Your task to perform on an android device: see sites visited before in the chrome app Image 0: 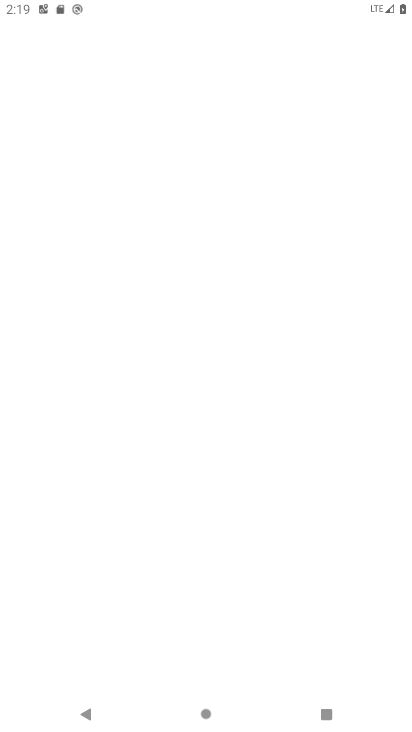
Step 0: drag from (249, 699) to (280, 534)
Your task to perform on an android device: see sites visited before in the chrome app Image 1: 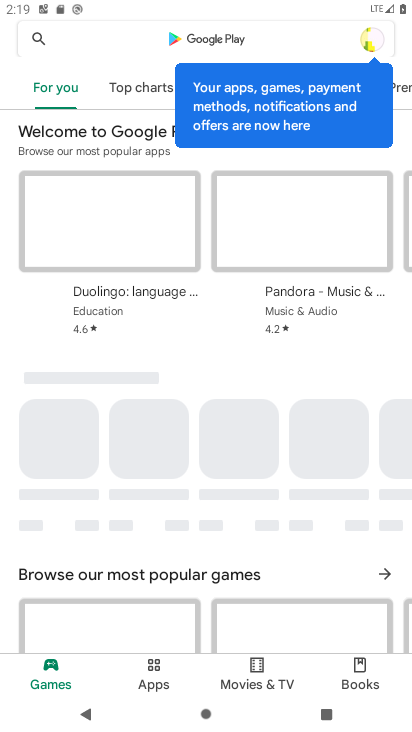
Step 1: press home button
Your task to perform on an android device: see sites visited before in the chrome app Image 2: 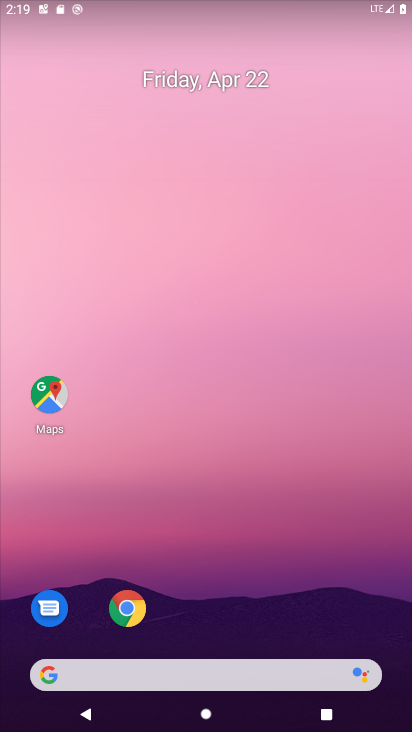
Step 2: drag from (258, 658) to (250, 246)
Your task to perform on an android device: see sites visited before in the chrome app Image 3: 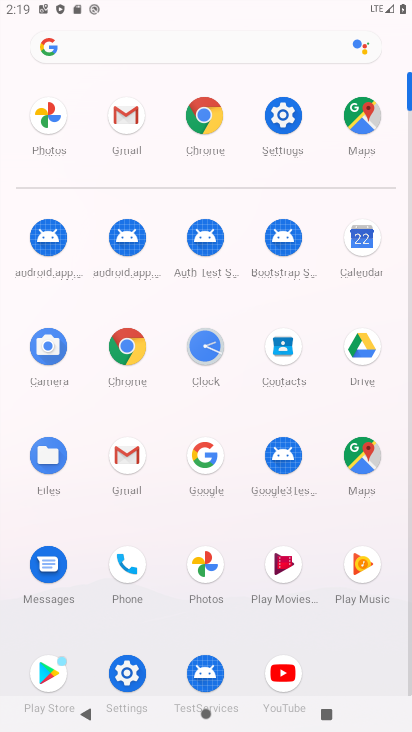
Step 3: click (198, 130)
Your task to perform on an android device: see sites visited before in the chrome app Image 4: 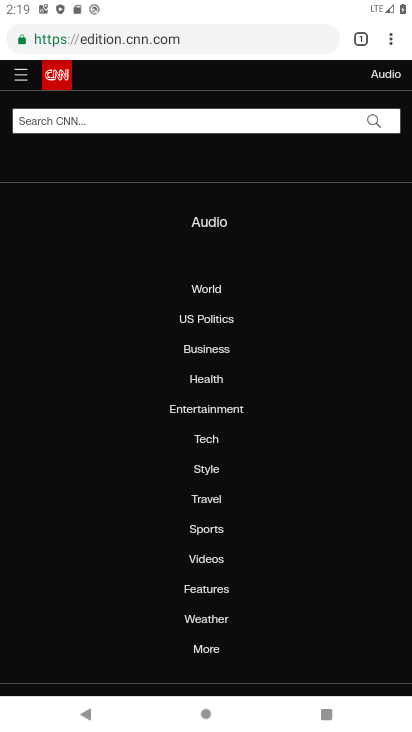
Step 4: click (388, 41)
Your task to perform on an android device: see sites visited before in the chrome app Image 5: 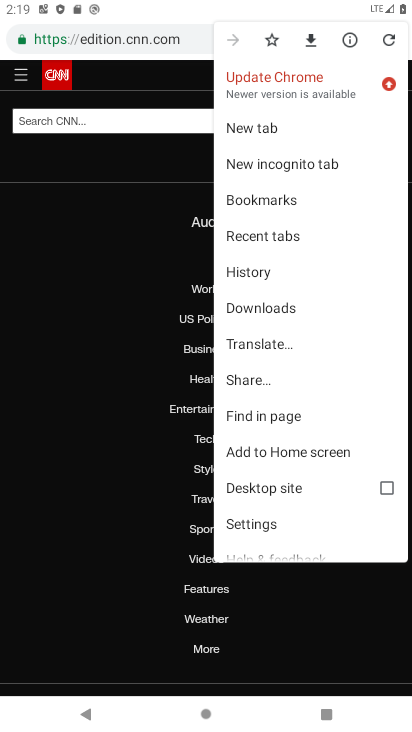
Step 5: click (261, 515)
Your task to perform on an android device: see sites visited before in the chrome app Image 6: 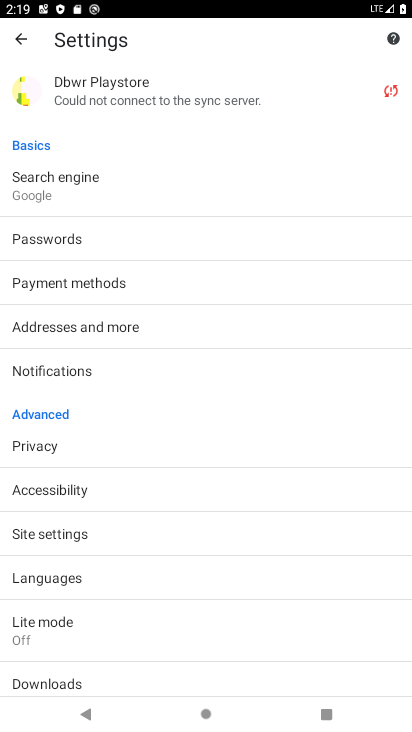
Step 6: drag from (161, 556) to (157, 477)
Your task to perform on an android device: see sites visited before in the chrome app Image 7: 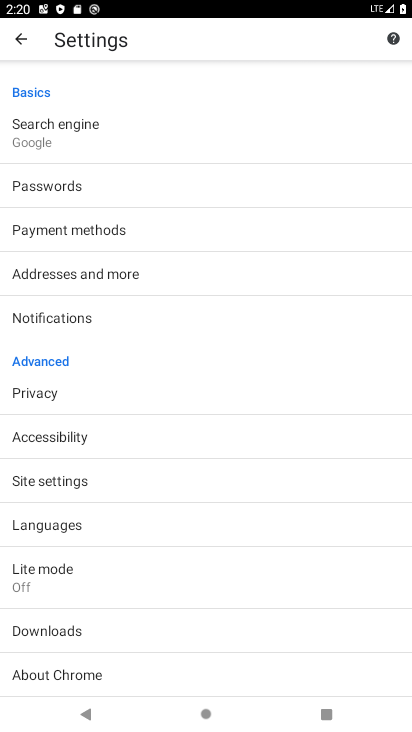
Step 7: click (115, 481)
Your task to perform on an android device: see sites visited before in the chrome app Image 8: 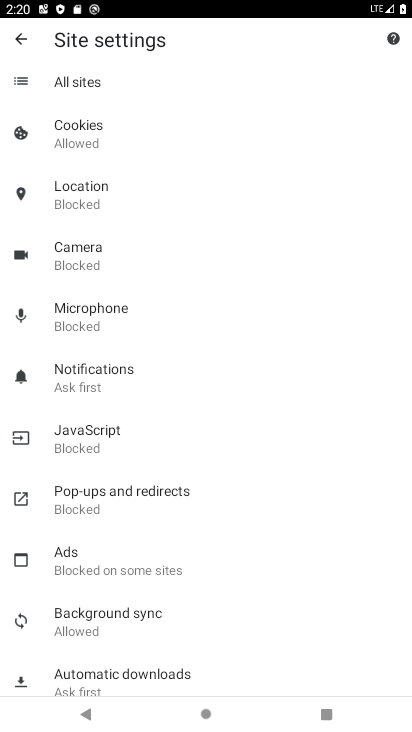
Step 8: click (113, 86)
Your task to perform on an android device: see sites visited before in the chrome app Image 9: 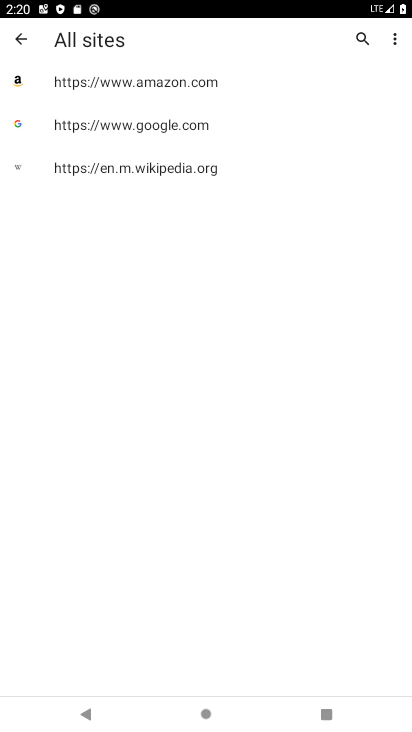
Step 9: task complete